Your task to perform on an android device: turn off data saver in the chrome app Image 0: 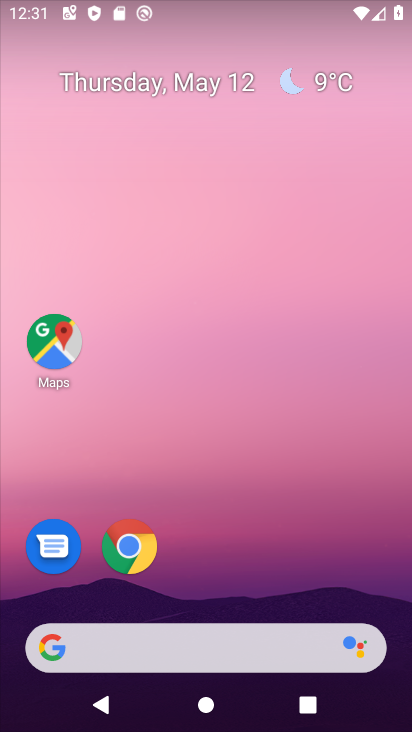
Step 0: click (123, 552)
Your task to perform on an android device: turn off data saver in the chrome app Image 1: 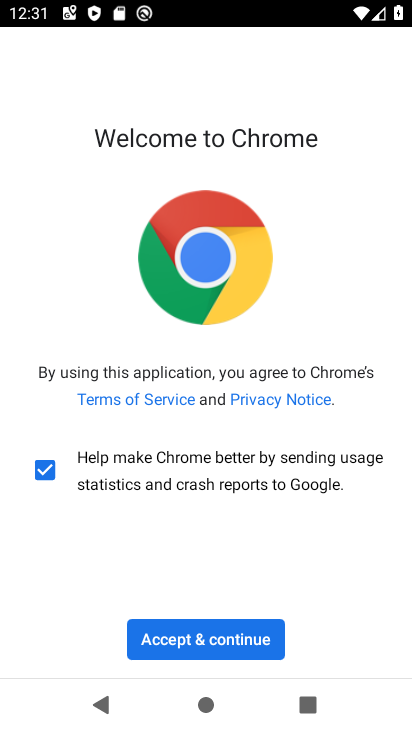
Step 1: click (226, 645)
Your task to perform on an android device: turn off data saver in the chrome app Image 2: 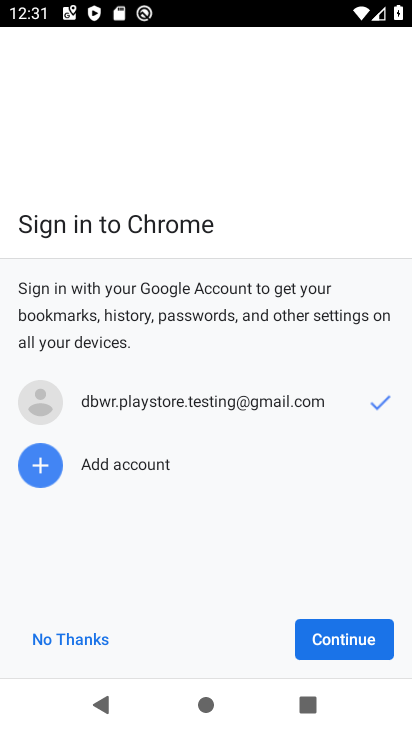
Step 2: click (333, 640)
Your task to perform on an android device: turn off data saver in the chrome app Image 3: 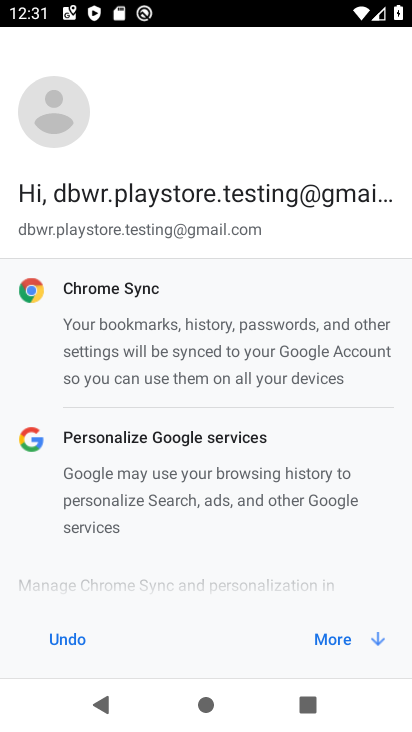
Step 3: click (345, 640)
Your task to perform on an android device: turn off data saver in the chrome app Image 4: 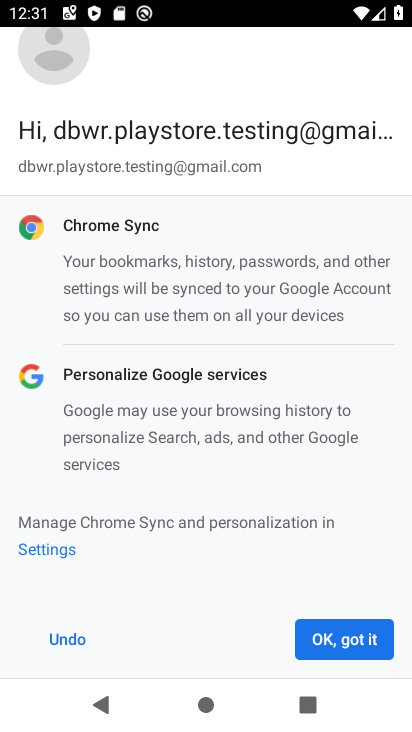
Step 4: click (345, 639)
Your task to perform on an android device: turn off data saver in the chrome app Image 5: 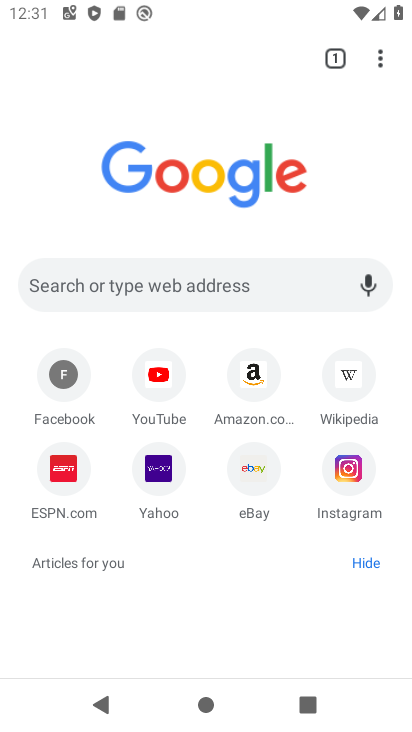
Step 5: drag from (383, 60) to (308, 485)
Your task to perform on an android device: turn off data saver in the chrome app Image 6: 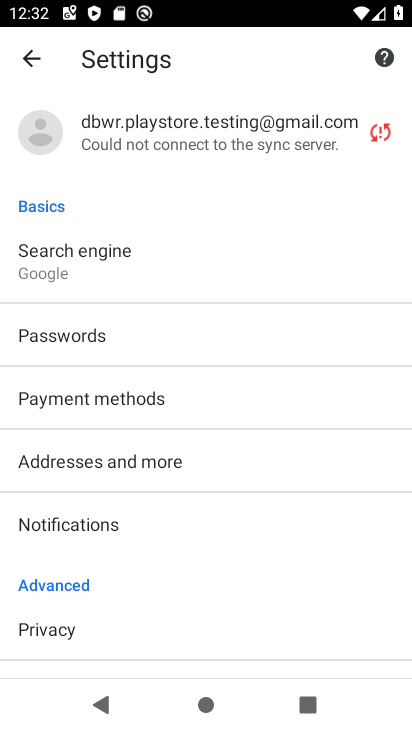
Step 6: drag from (195, 587) to (204, 261)
Your task to perform on an android device: turn off data saver in the chrome app Image 7: 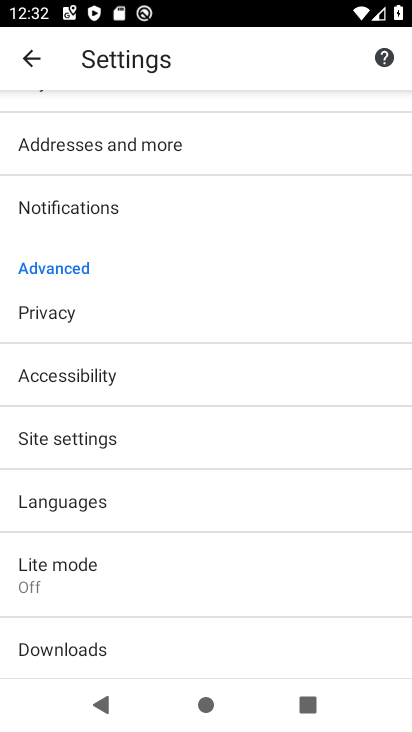
Step 7: click (72, 578)
Your task to perform on an android device: turn off data saver in the chrome app Image 8: 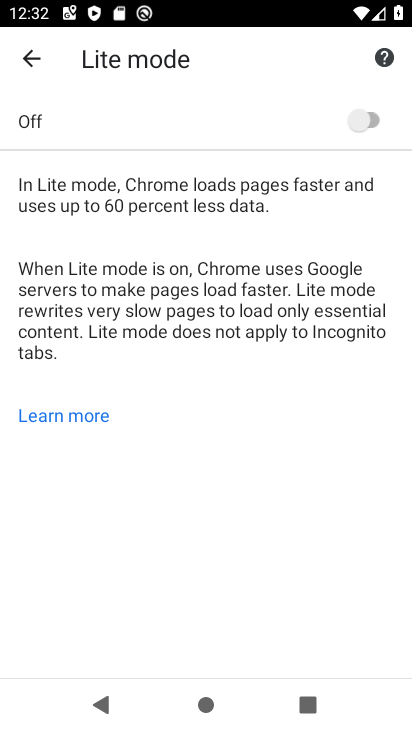
Step 8: task complete